Your task to perform on an android device: change notifications settings Image 0: 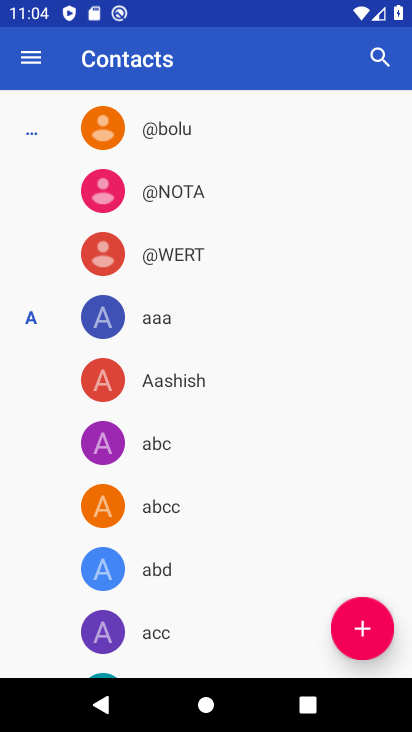
Step 0: press home button
Your task to perform on an android device: change notifications settings Image 1: 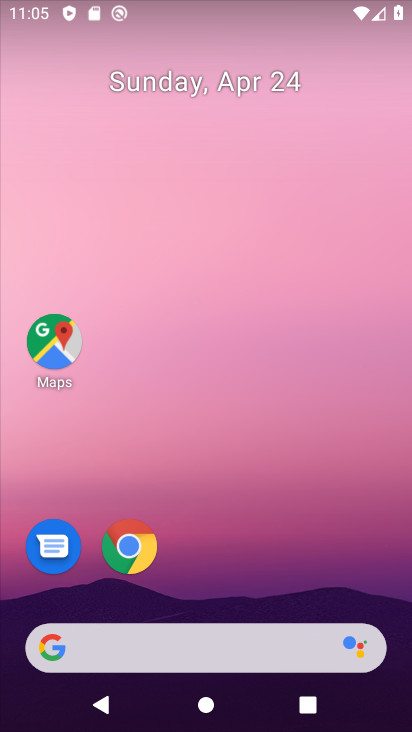
Step 1: drag from (201, 559) to (251, 116)
Your task to perform on an android device: change notifications settings Image 2: 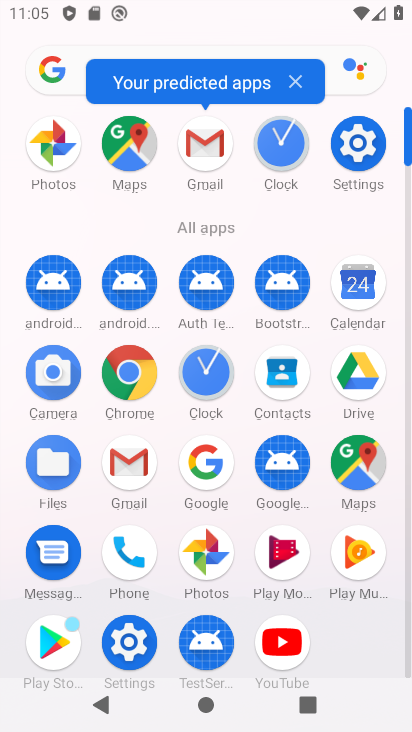
Step 2: click (355, 166)
Your task to perform on an android device: change notifications settings Image 3: 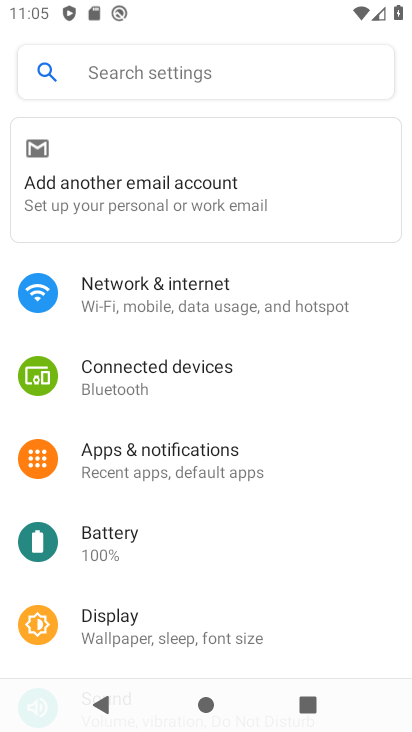
Step 3: click (172, 454)
Your task to perform on an android device: change notifications settings Image 4: 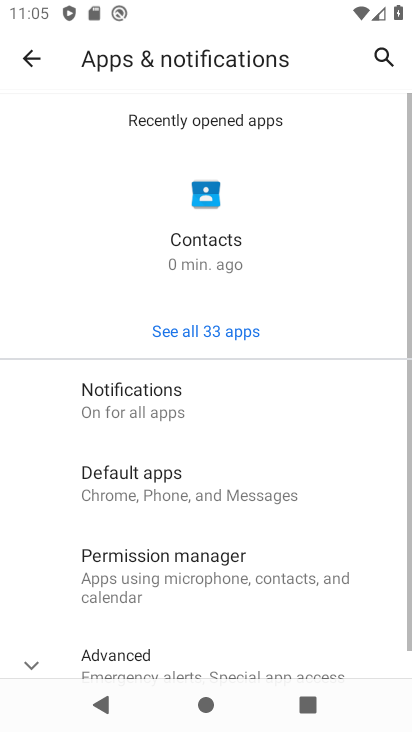
Step 4: click (259, 405)
Your task to perform on an android device: change notifications settings Image 5: 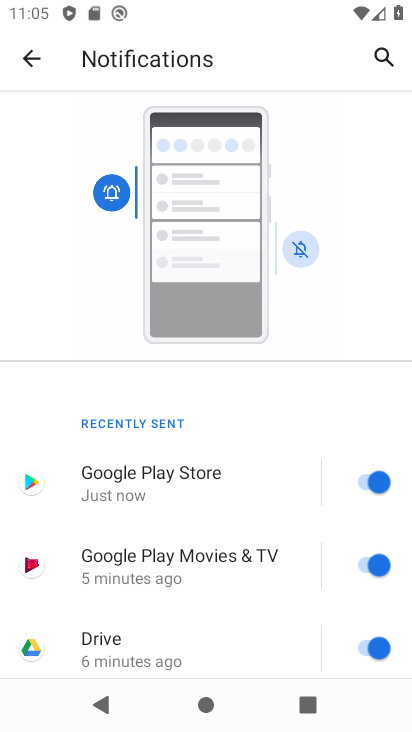
Step 5: drag from (244, 632) to (299, 376)
Your task to perform on an android device: change notifications settings Image 6: 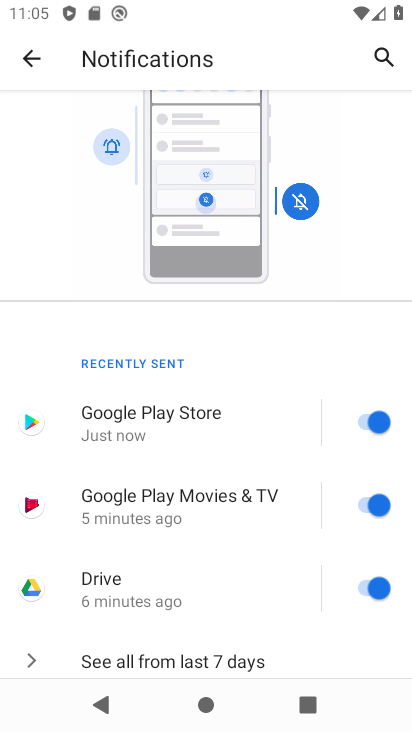
Step 6: click (378, 425)
Your task to perform on an android device: change notifications settings Image 7: 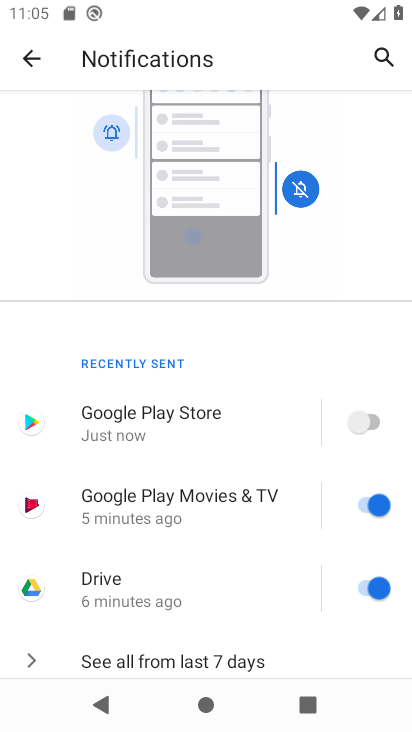
Step 7: click (377, 513)
Your task to perform on an android device: change notifications settings Image 8: 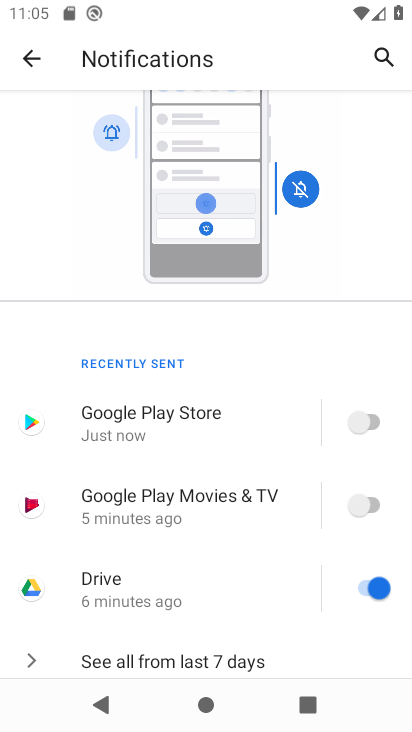
Step 8: task complete